Your task to perform on an android device: Show me recent news Image 0: 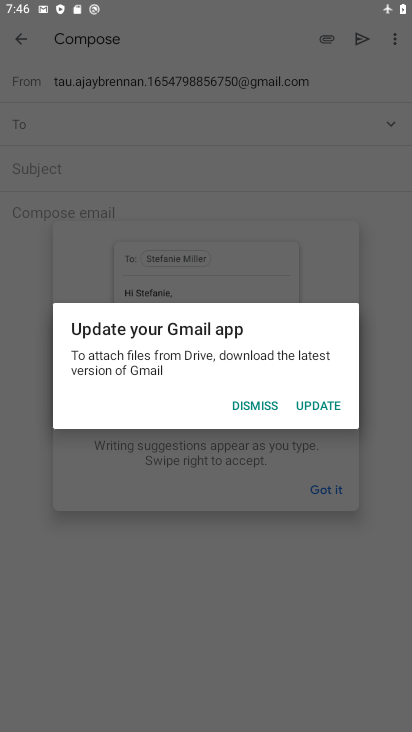
Step 0: press home button
Your task to perform on an android device: Show me recent news Image 1: 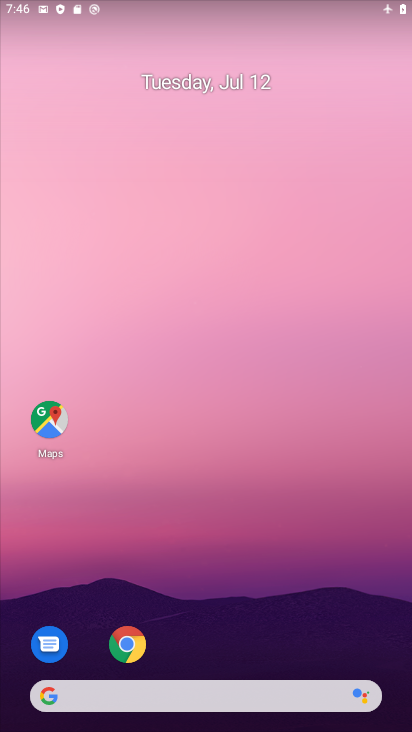
Step 1: drag from (197, 638) to (274, 85)
Your task to perform on an android device: Show me recent news Image 2: 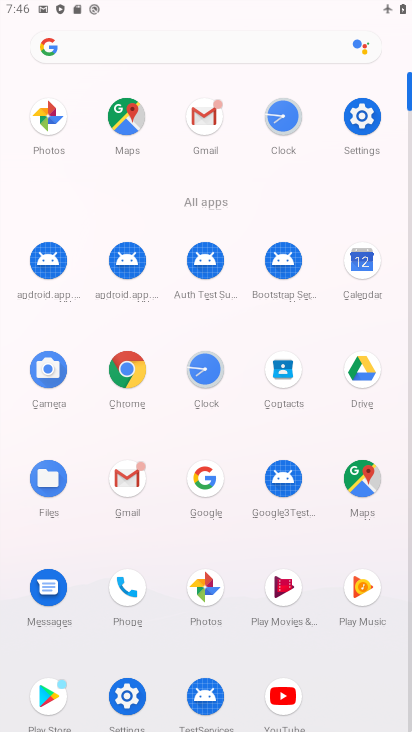
Step 2: click (198, 496)
Your task to perform on an android device: Show me recent news Image 3: 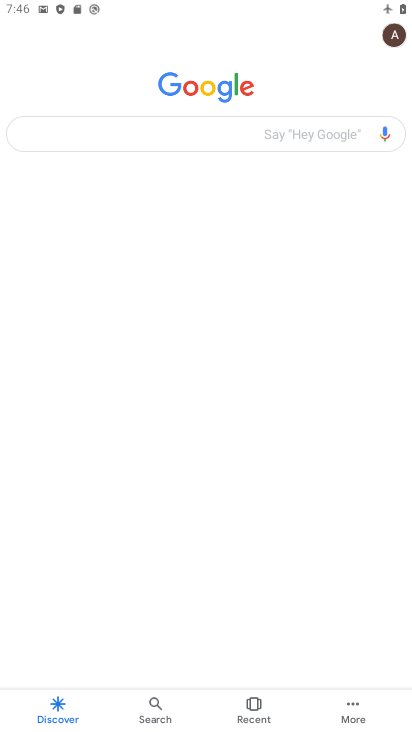
Step 3: click (167, 129)
Your task to perform on an android device: Show me recent news Image 4: 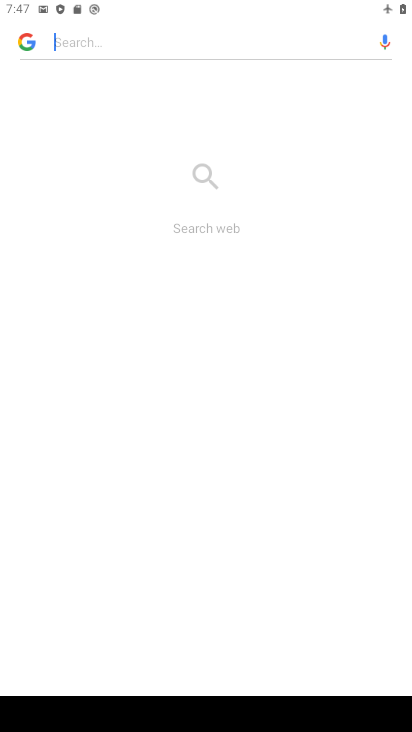
Step 4: click (116, 49)
Your task to perform on an android device: Show me recent news Image 5: 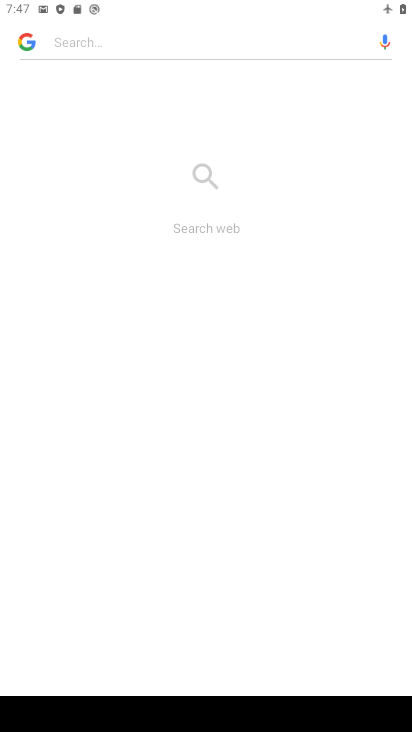
Step 5: type "news"
Your task to perform on an android device: Show me recent news Image 6: 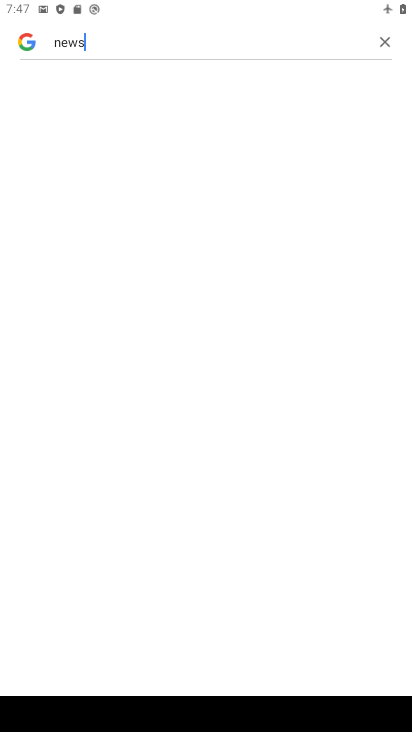
Step 6: task complete